Your task to perform on an android device: toggle notification dots Image 0: 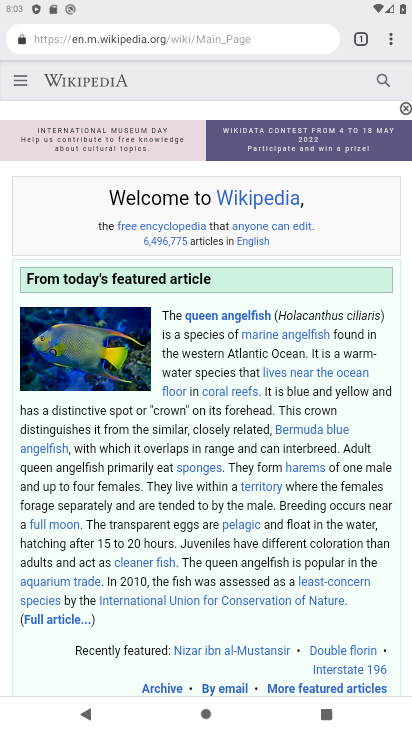
Step 0: press home button
Your task to perform on an android device: toggle notification dots Image 1: 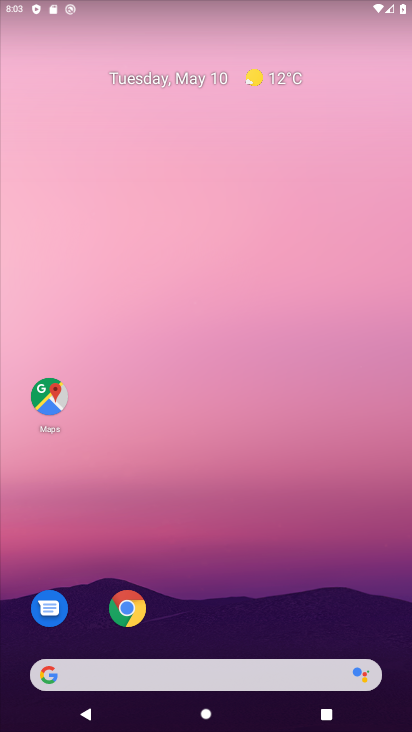
Step 1: drag from (193, 684) to (142, 167)
Your task to perform on an android device: toggle notification dots Image 2: 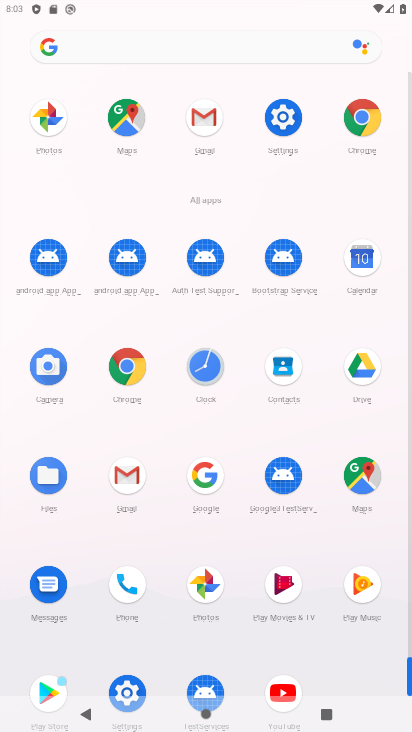
Step 2: click (288, 106)
Your task to perform on an android device: toggle notification dots Image 3: 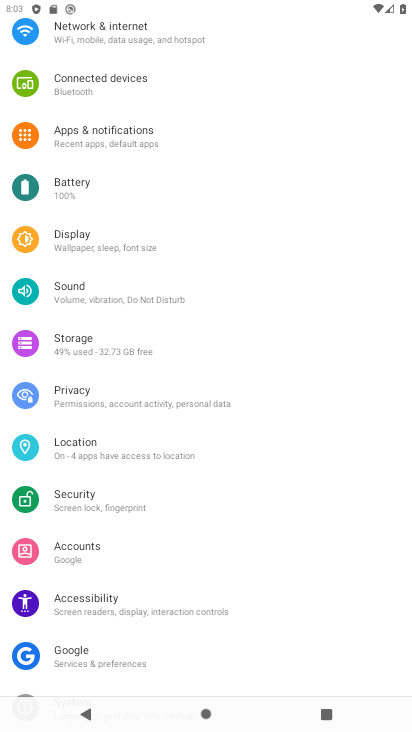
Step 3: click (190, 129)
Your task to perform on an android device: toggle notification dots Image 4: 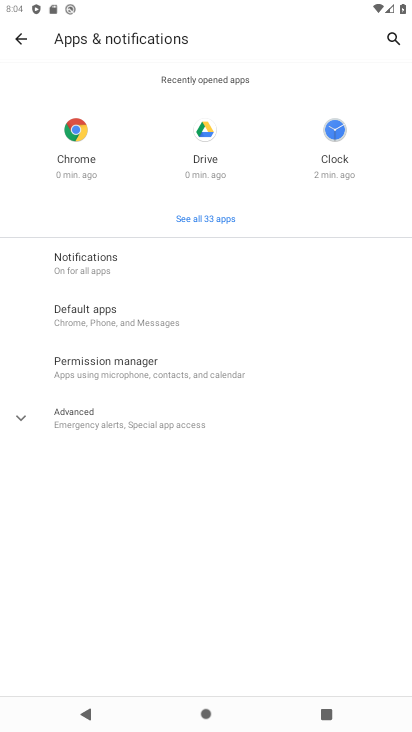
Step 4: click (153, 415)
Your task to perform on an android device: toggle notification dots Image 5: 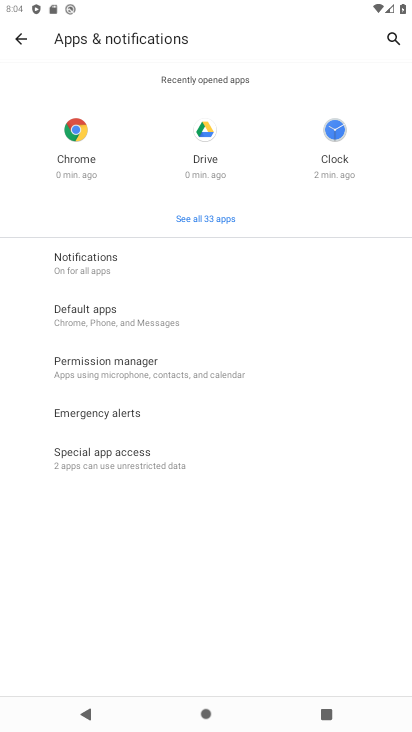
Step 5: click (121, 264)
Your task to perform on an android device: toggle notification dots Image 6: 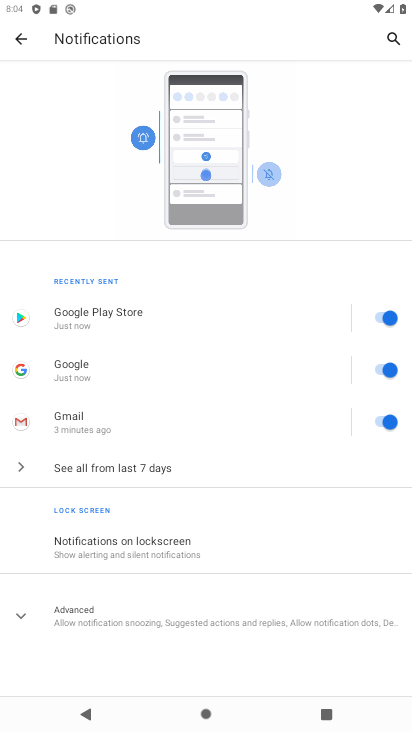
Step 6: click (181, 608)
Your task to perform on an android device: toggle notification dots Image 7: 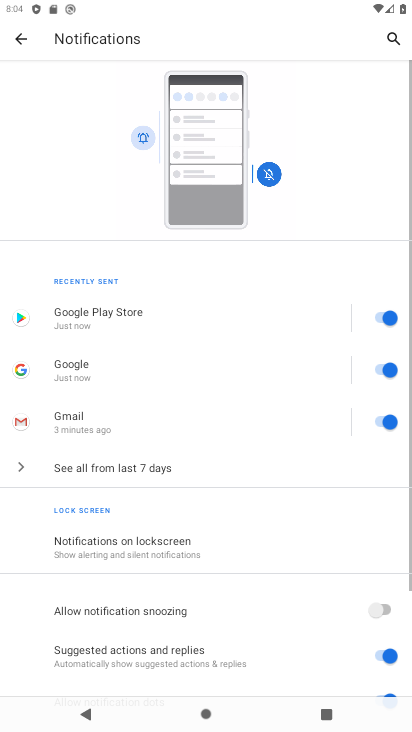
Step 7: drag from (196, 614) to (165, 303)
Your task to perform on an android device: toggle notification dots Image 8: 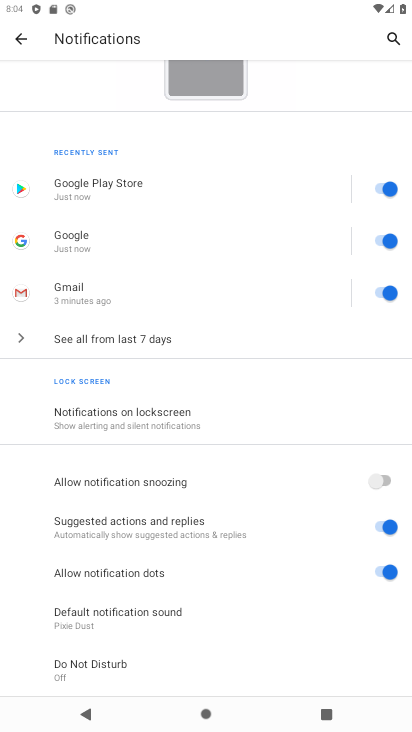
Step 8: click (386, 575)
Your task to perform on an android device: toggle notification dots Image 9: 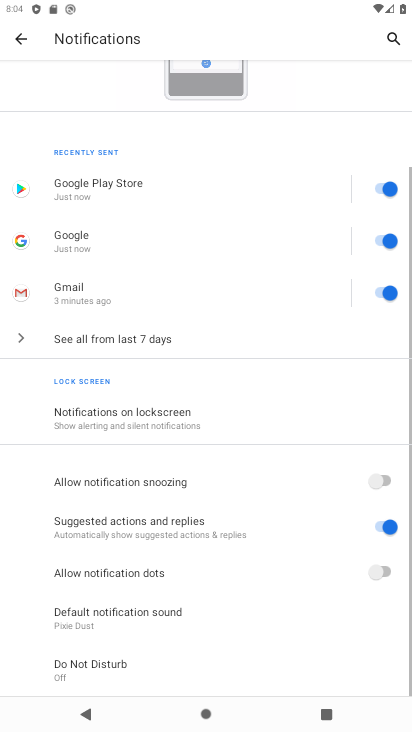
Step 9: task complete